Your task to perform on an android device: check data usage Image 0: 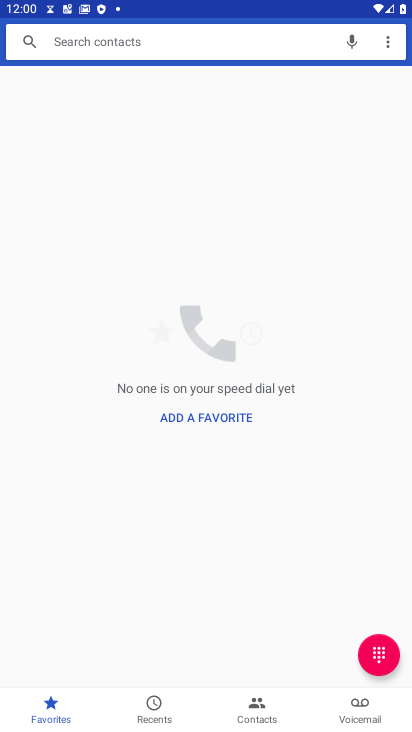
Step 0: press back button
Your task to perform on an android device: check data usage Image 1: 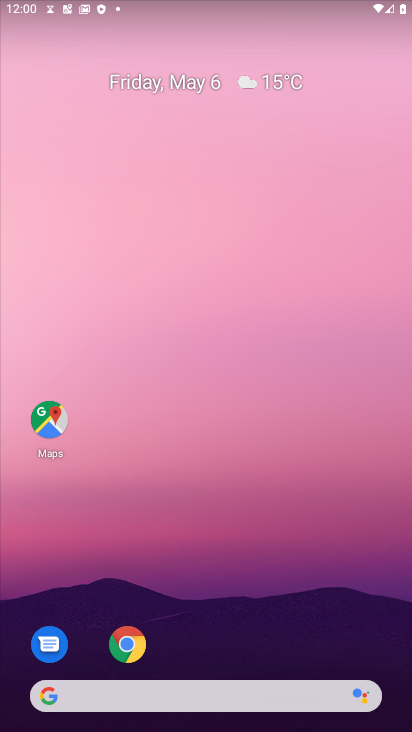
Step 1: drag from (237, 608) to (241, 21)
Your task to perform on an android device: check data usage Image 2: 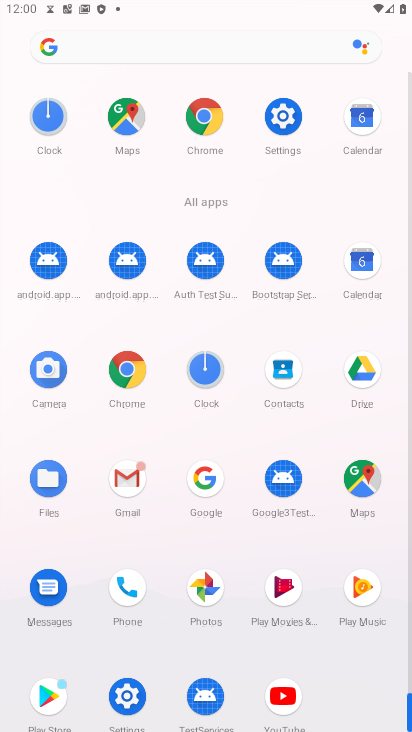
Step 2: drag from (8, 576) to (22, 237)
Your task to perform on an android device: check data usage Image 3: 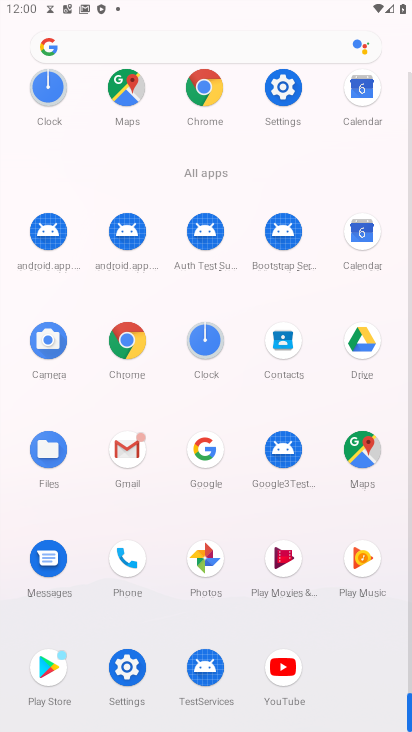
Step 3: click (125, 664)
Your task to perform on an android device: check data usage Image 4: 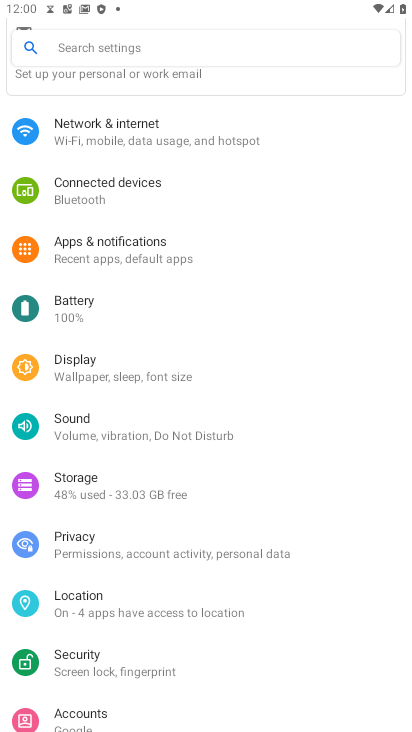
Step 4: drag from (263, 160) to (268, 575)
Your task to perform on an android device: check data usage Image 5: 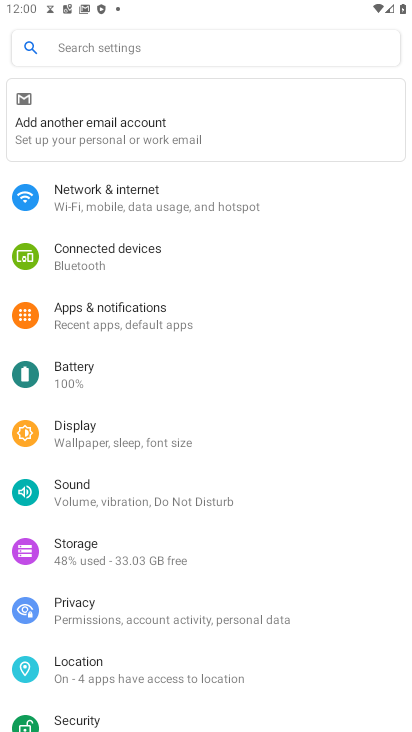
Step 5: click (207, 199)
Your task to perform on an android device: check data usage Image 6: 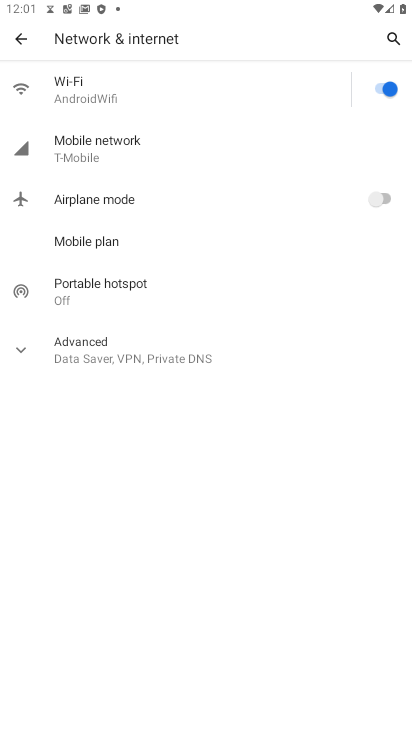
Step 6: click (137, 154)
Your task to perform on an android device: check data usage Image 7: 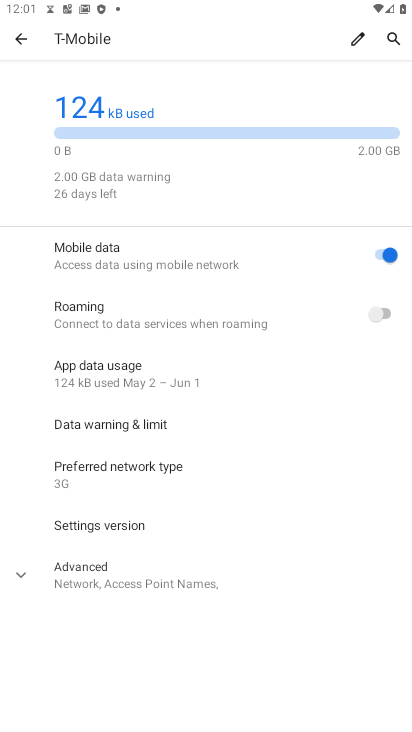
Step 7: task complete